Your task to perform on an android device: open the mobile data screen to see how much data has been used Image 0: 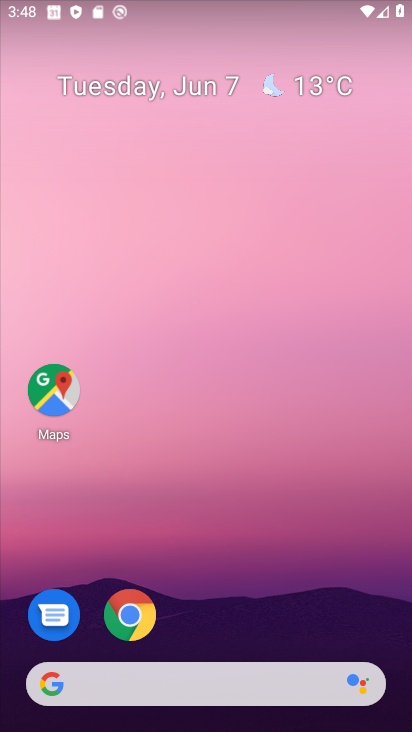
Step 0: drag from (259, 198) to (114, 29)
Your task to perform on an android device: open the mobile data screen to see how much data has been used Image 1: 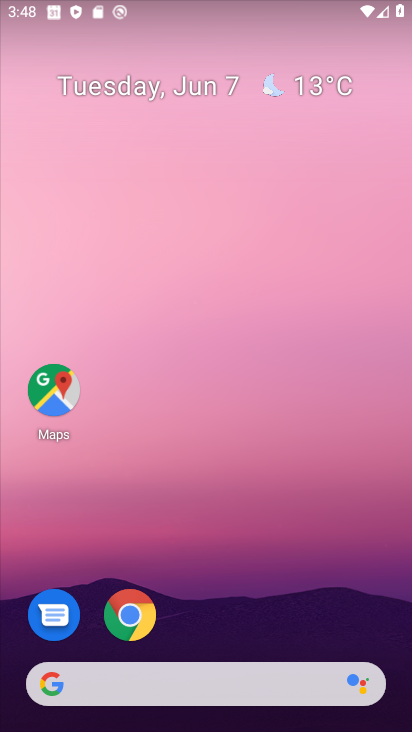
Step 1: drag from (341, 623) to (285, 37)
Your task to perform on an android device: open the mobile data screen to see how much data has been used Image 2: 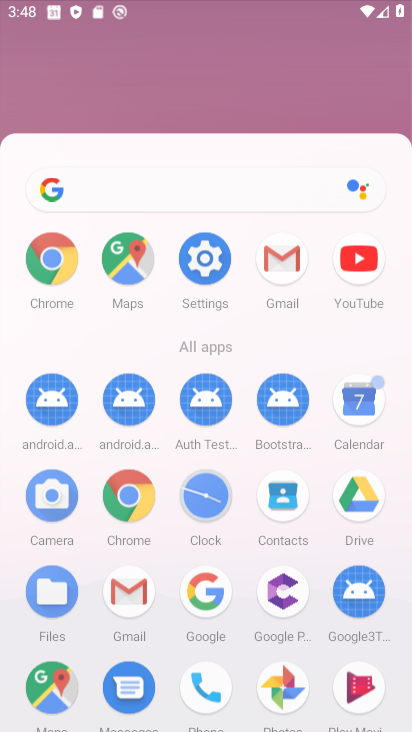
Step 2: drag from (206, 401) to (206, 16)
Your task to perform on an android device: open the mobile data screen to see how much data has been used Image 3: 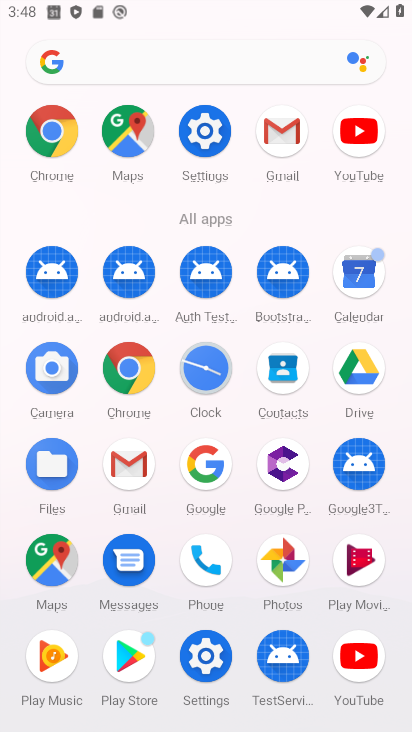
Step 3: click (199, 135)
Your task to perform on an android device: open the mobile data screen to see how much data has been used Image 4: 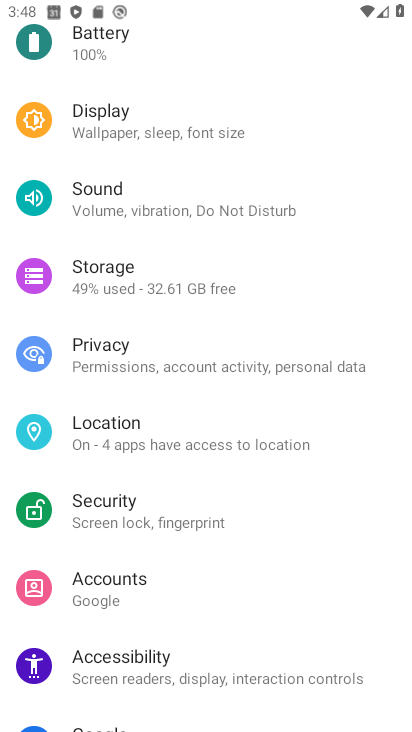
Step 4: drag from (124, 98) to (173, 471)
Your task to perform on an android device: open the mobile data screen to see how much data has been used Image 5: 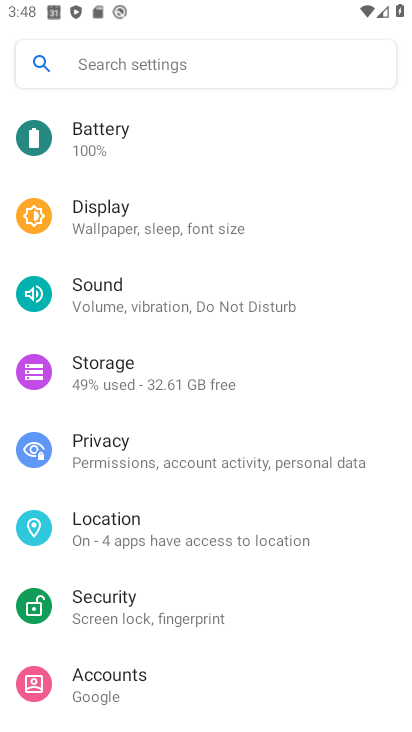
Step 5: drag from (181, 203) to (171, 595)
Your task to perform on an android device: open the mobile data screen to see how much data has been used Image 6: 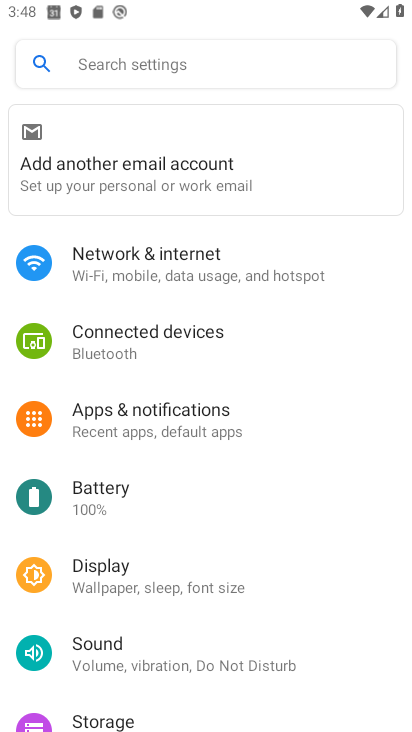
Step 6: click (154, 264)
Your task to perform on an android device: open the mobile data screen to see how much data has been used Image 7: 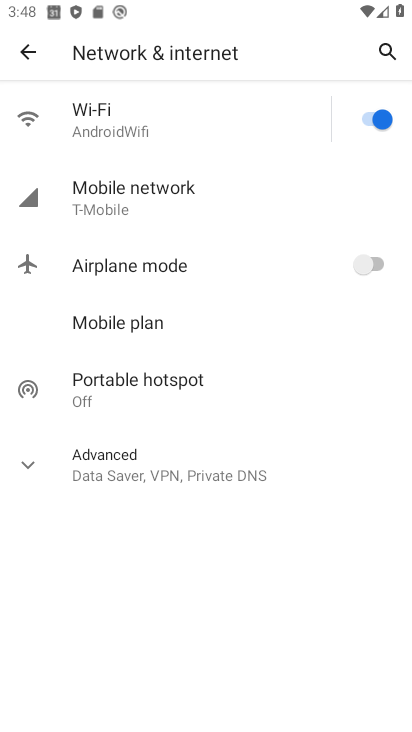
Step 7: click (104, 209)
Your task to perform on an android device: open the mobile data screen to see how much data has been used Image 8: 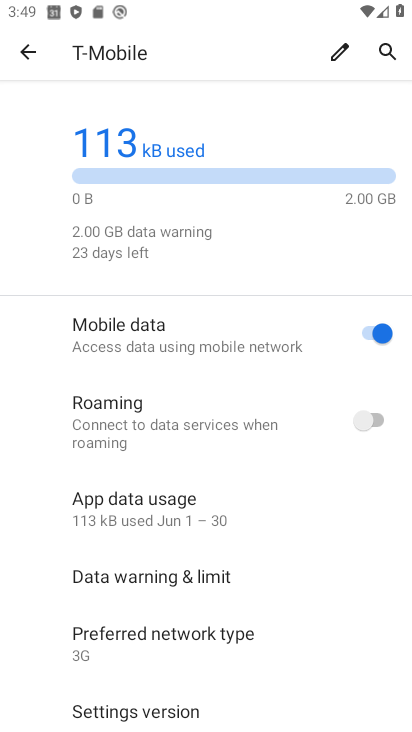
Step 8: click (20, 48)
Your task to perform on an android device: open the mobile data screen to see how much data has been used Image 9: 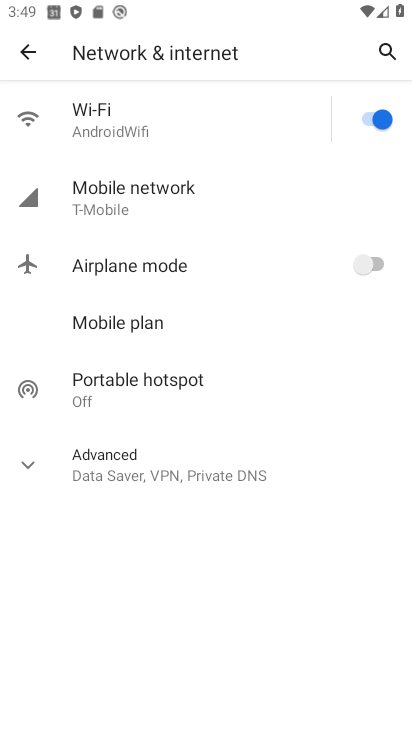
Step 9: task complete